Your task to perform on an android device: toggle wifi Image 0: 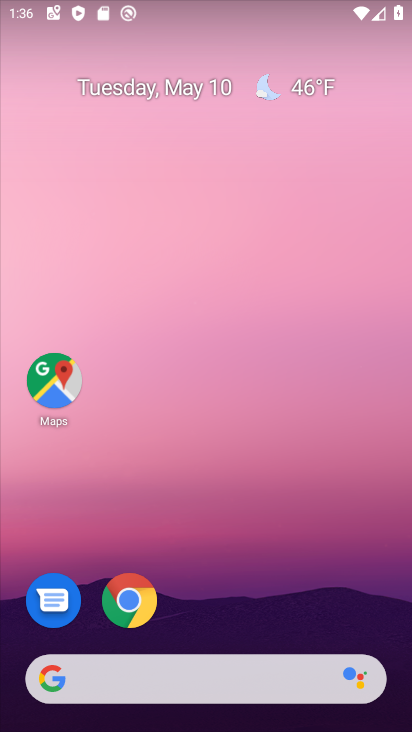
Step 0: drag from (221, 688) to (280, 169)
Your task to perform on an android device: toggle wifi Image 1: 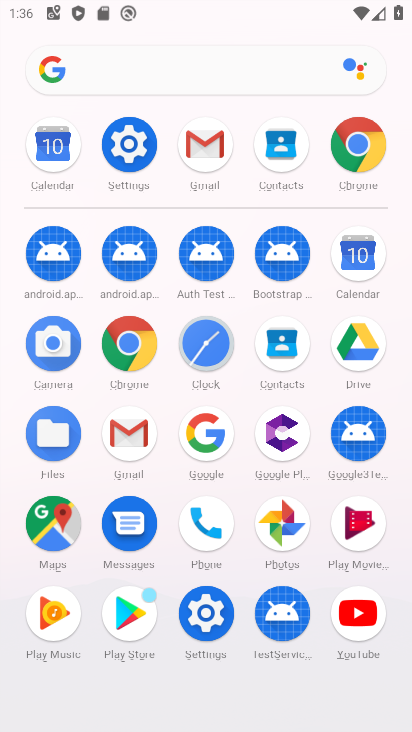
Step 1: click (139, 150)
Your task to perform on an android device: toggle wifi Image 2: 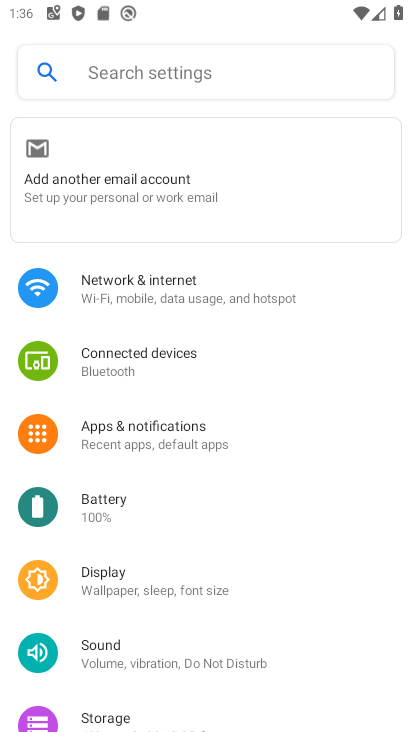
Step 2: click (174, 288)
Your task to perform on an android device: toggle wifi Image 3: 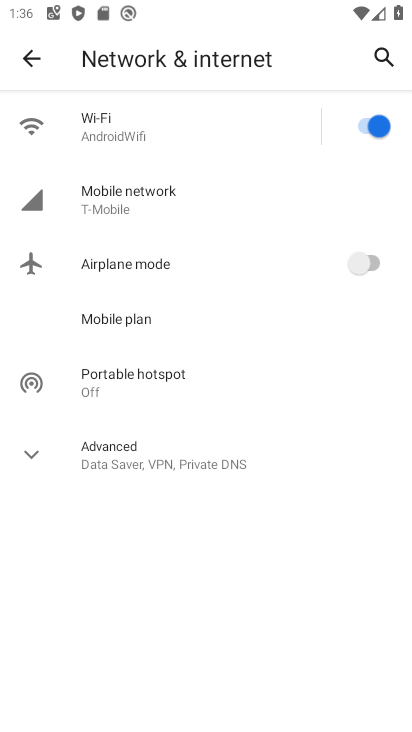
Step 3: click (358, 130)
Your task to perform on an android device: toggle wifi Image 4: 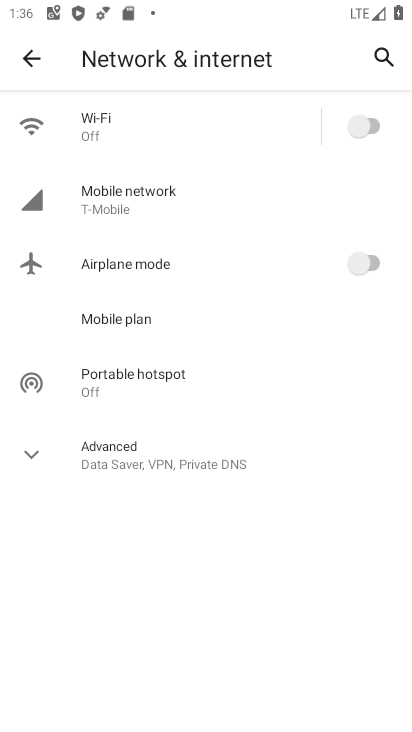
Step 4: task complete